Your task to perform on an android device: open chrome and create a bookmark for the current page Image 0: 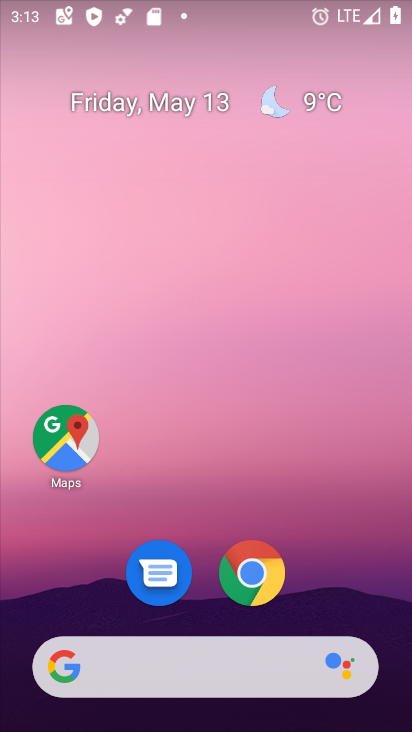
Step 0: click (254, 570)
Your task to perform on an android device: open chrome and create a bookmark for the current page Image 1: 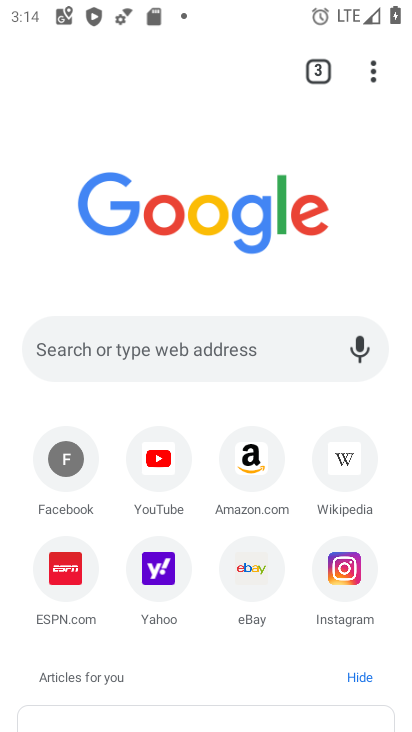
Step 1: click (373, 72)
Your task to perform on an android device: open chrome and create a bookmark for the current page Image 2: 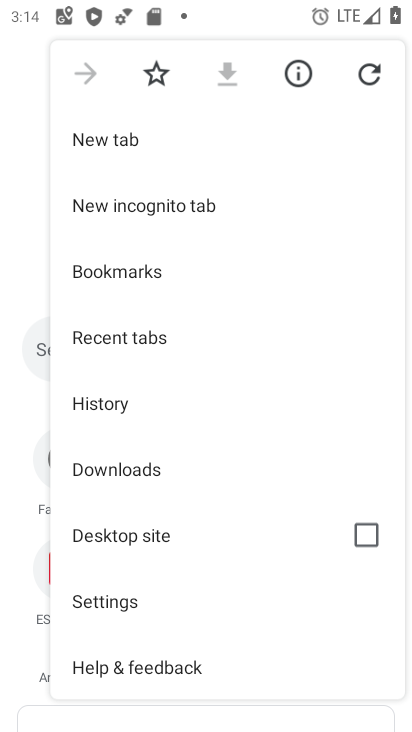
Step 2: click (155, 75)
Your task to perform on an android device: open chrome and create a bookmark for the current page Image 3: 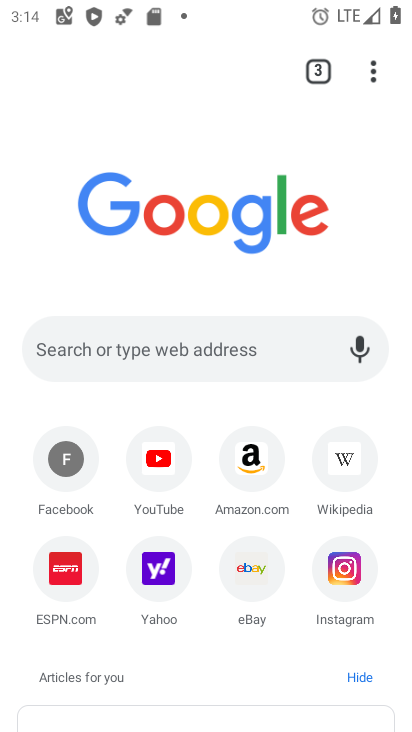
Step 3: task complete